Your task to perform on an android device: Open Android settings Image 0: 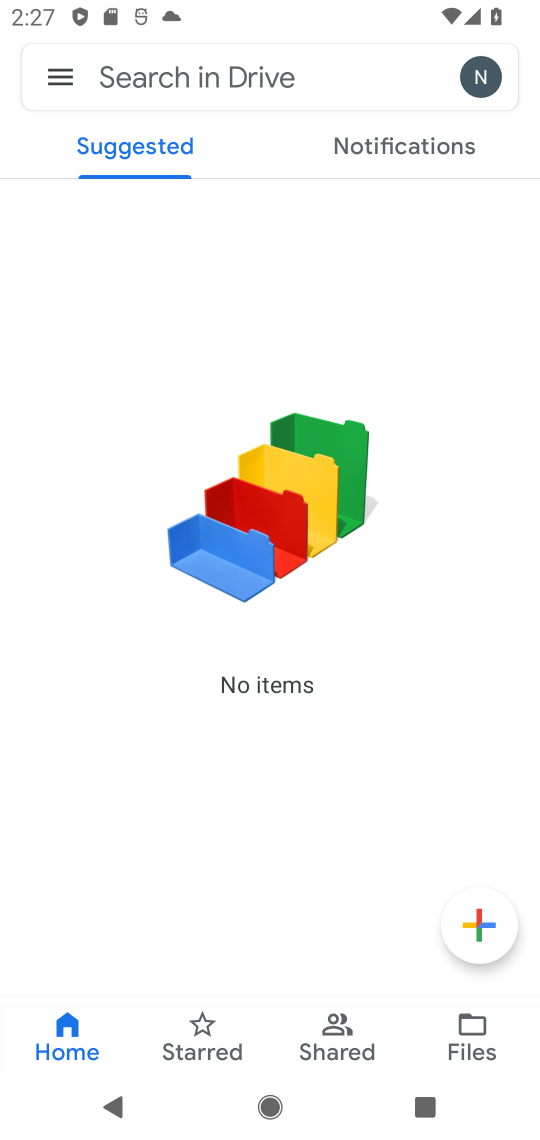
Step 0: press home button
Your task to perform on an android device: Open Android settings Image 1: 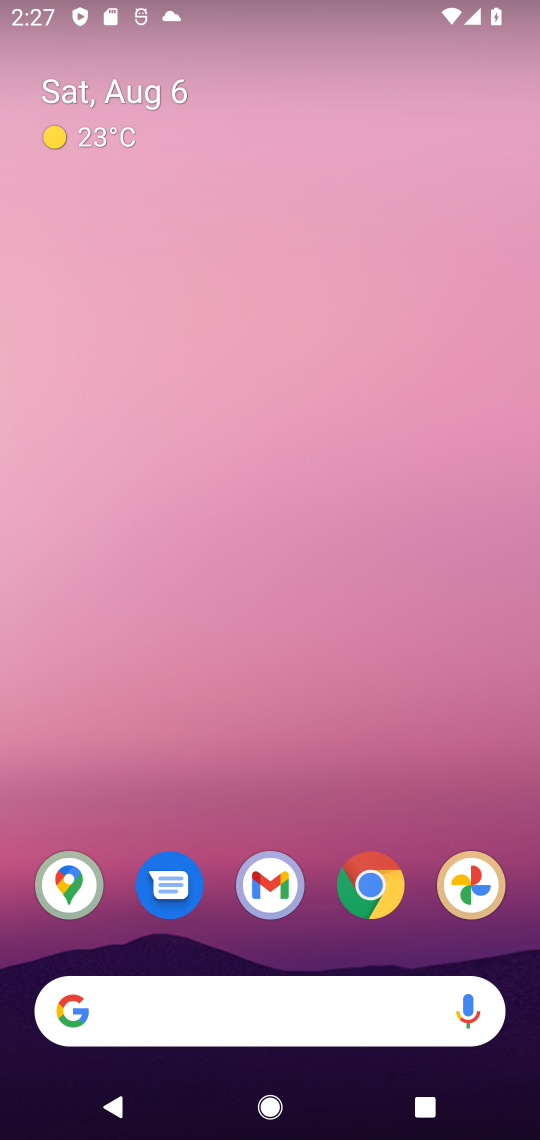
Step 1: drag from (520, 935) to (412, 53)
Your task to perform on an android device: Open Android settings Image 2: 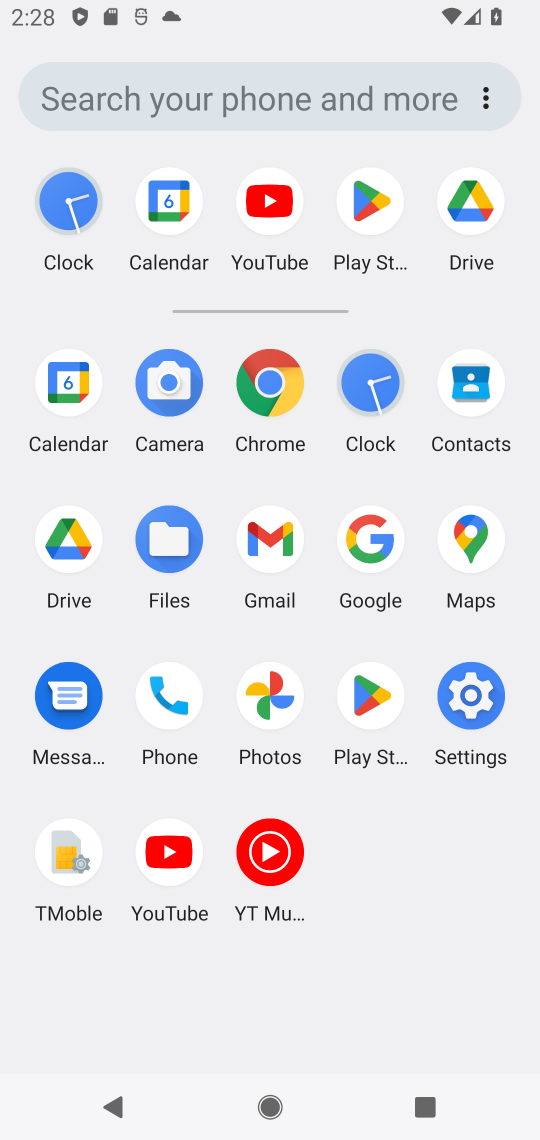
Step 2: click (475, 674)
Your task to perform on an android device: Open Android settings Image 3: 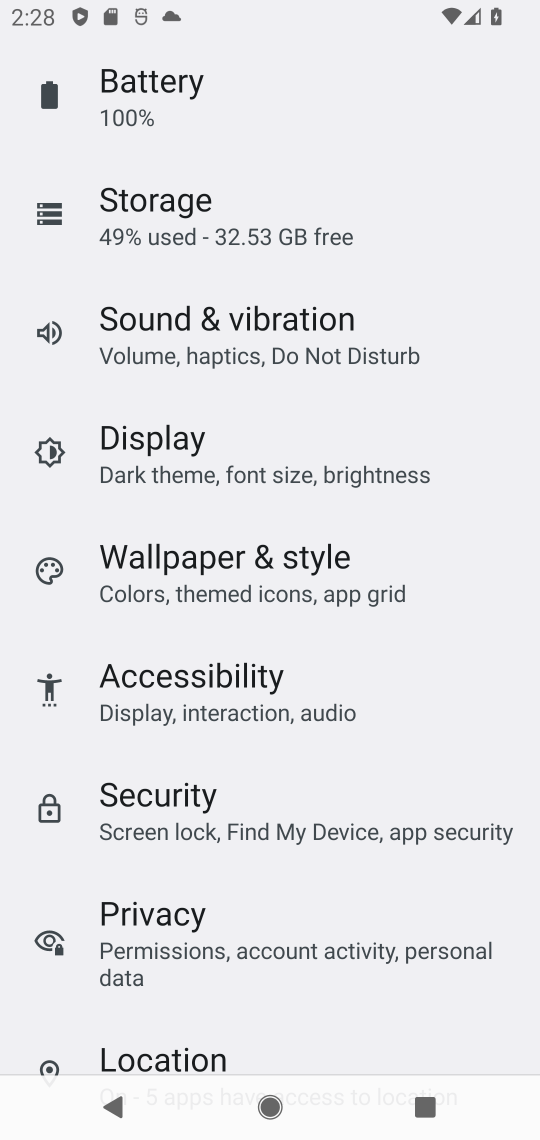
Step 3: task complete